Your task to perform on an android device: Open my contact list Image 0: 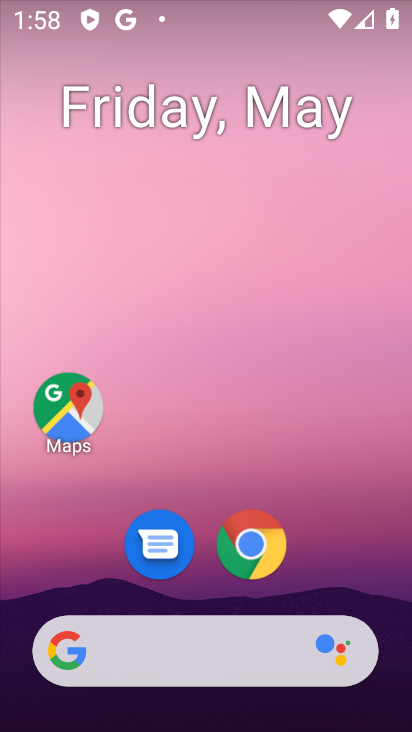
Step 0: drag from (207, 591) to (214, 236)
Your task to perform on an android device: Open my contact list Image 1: 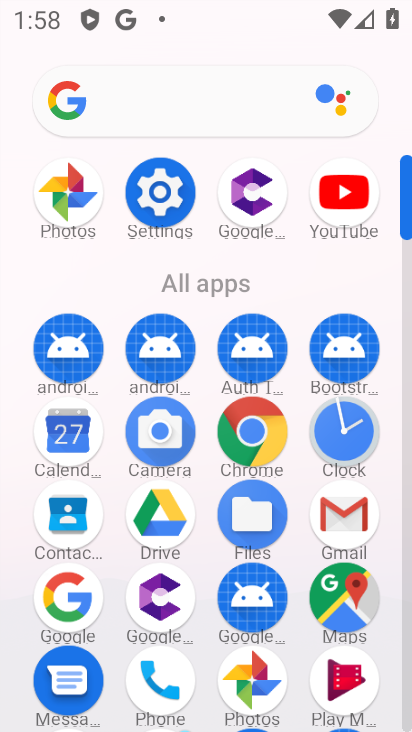
Step 1: drag from (189, 614) to (212, 324)
Your task to perform on an android device: Open my contact list Image 2: 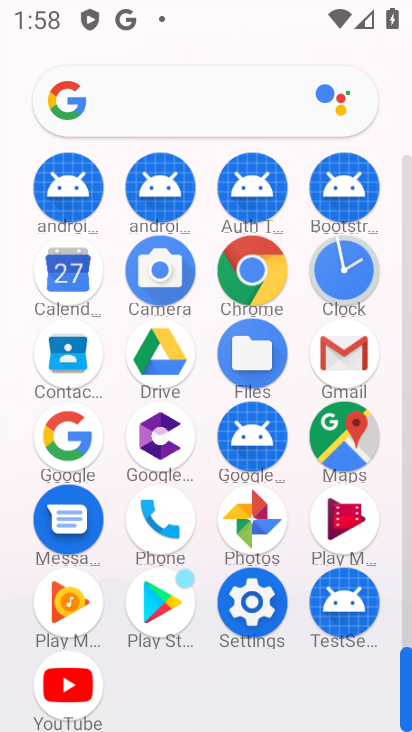
Step 2: click (73, 361)
Your task to perform on an android device: Open my contact list Image 3: 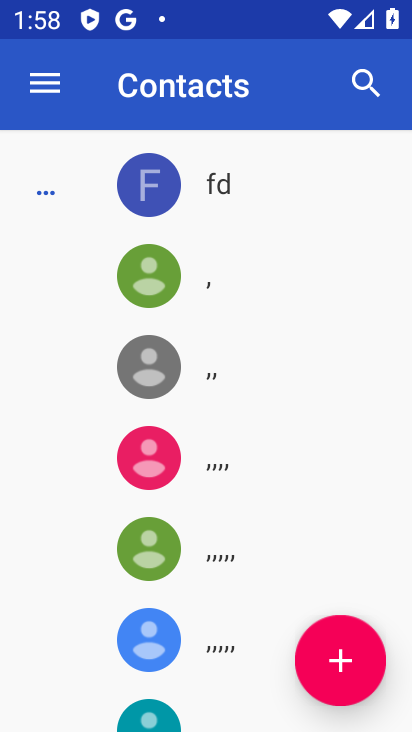
Step 3: task complete